Your task to perform on an android device: Open calendar and show me the second week of next month Image 0: 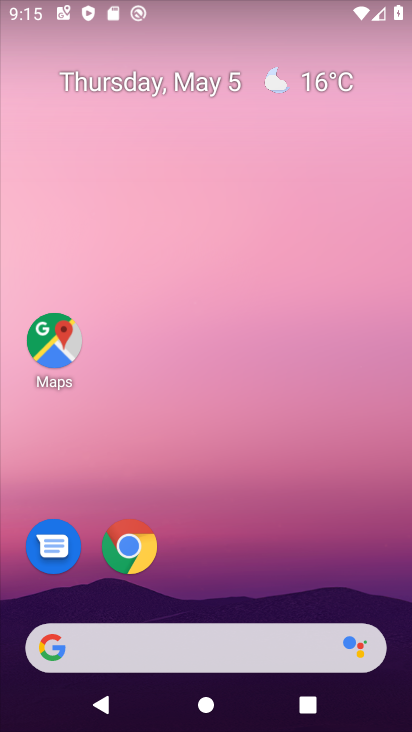
Step 0: drag from (247, 598) to (171, 87)
Your task to perform on an android device: Open calendar and show me the second week of next month Image 1: 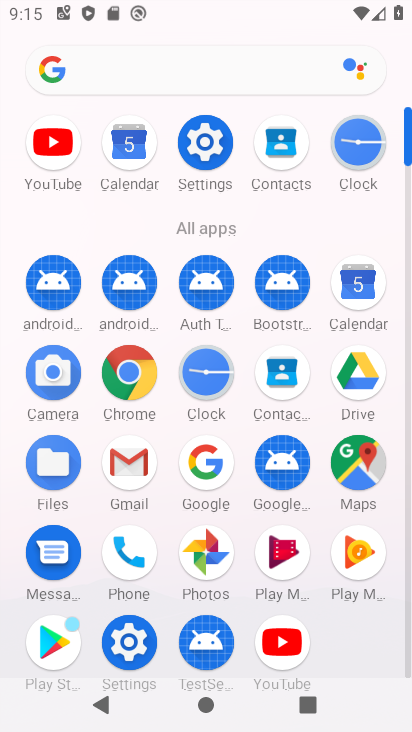
Step 1: click (347, 286)
Your task to perform on an android device: Open calendar and show me the second week of next month Image 2: 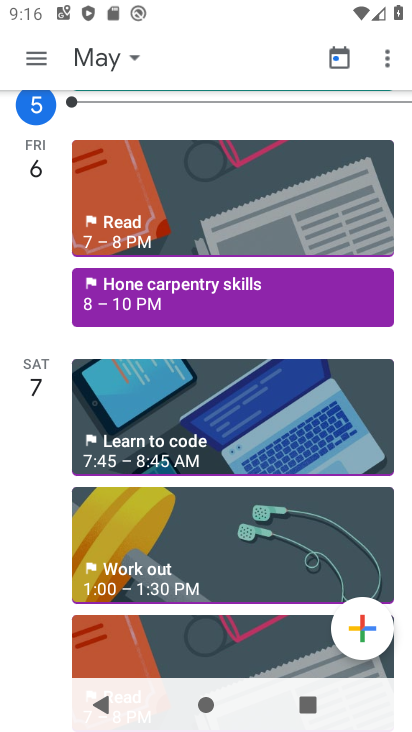
Step 2: click (130, 64)
Your task to perform on an android device: Open calendar and show me the second week of next month Image 3: 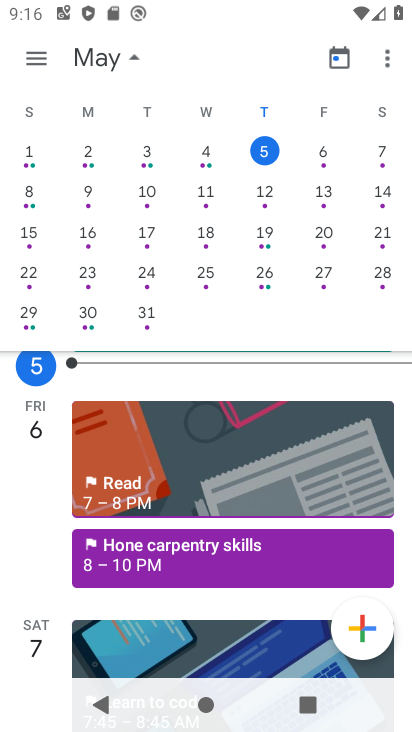
Step 3: drag from (334, 224) to (12, 308)
Your task to perform on an android device: Open calendar and show me the second week of next month Image 4: 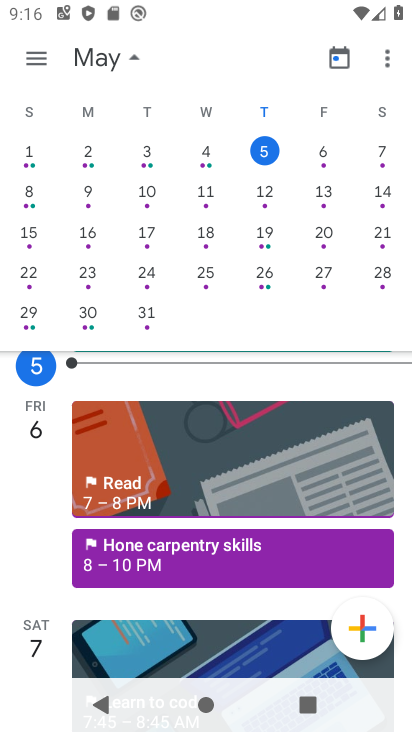
Step 4: drag from (385, 218) to (20, 244)
Your task to perform on an android device: Open calendar and show me the second week of next month Image 5: 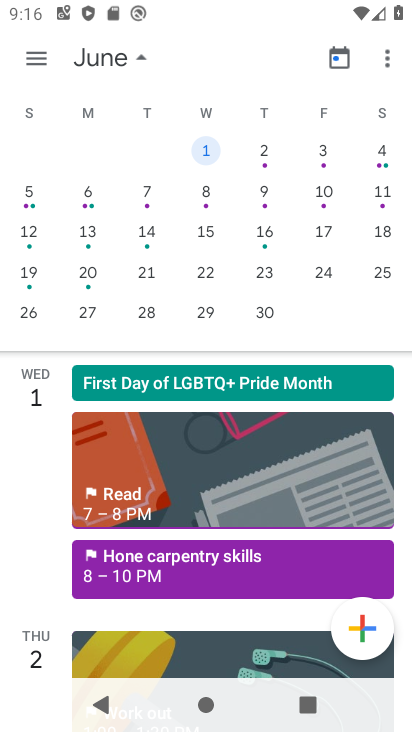
Step 5: click (37, 198)
Your task to perform on an android device: Open calendar and show me the second week of next month Image 6: 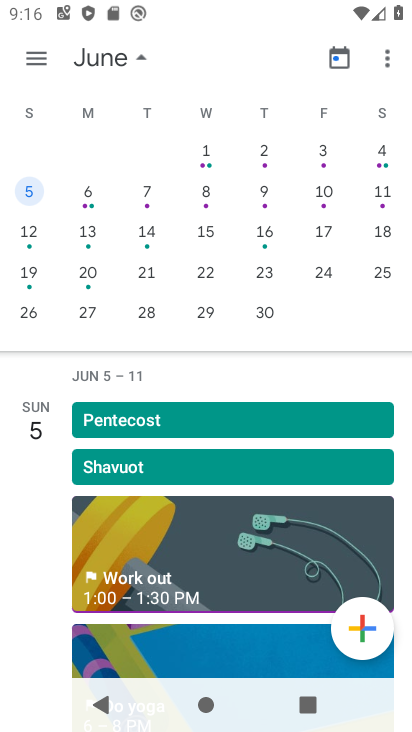
Step 6: task complete